Your task to perform on an android device: Turn off the flashlight Image 0: 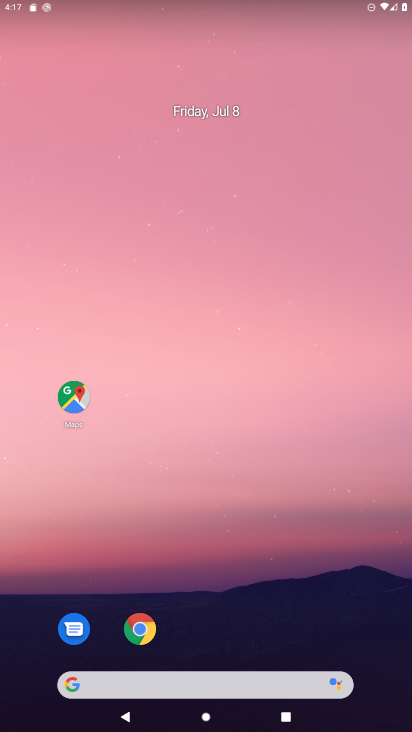
Step 0: drag from (333, 613) to (207, 0)
Your task to perform on an android device: Turn off the flashlight Image 1: 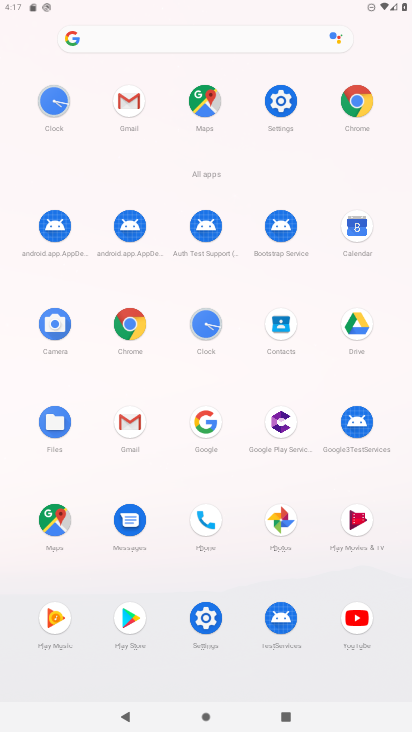
Step 1: click (281, 123)
Your task to perform on an android device: Turn off the flashlight Image 2: 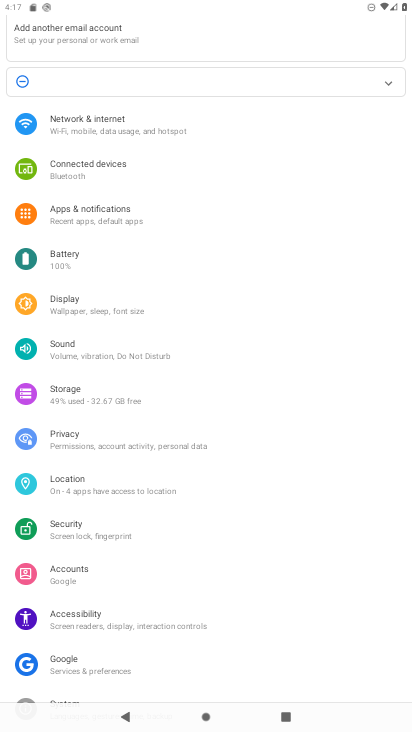
Step 2: click (144, 443)
Your task to perform on an android device: Turn off the flashlight Image 3: 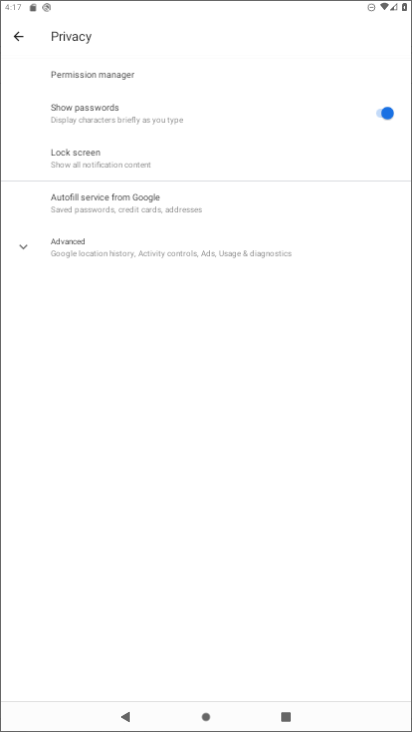
Step 3: task complete